Your task to perform on an android device: set the stopwatch Image 0: 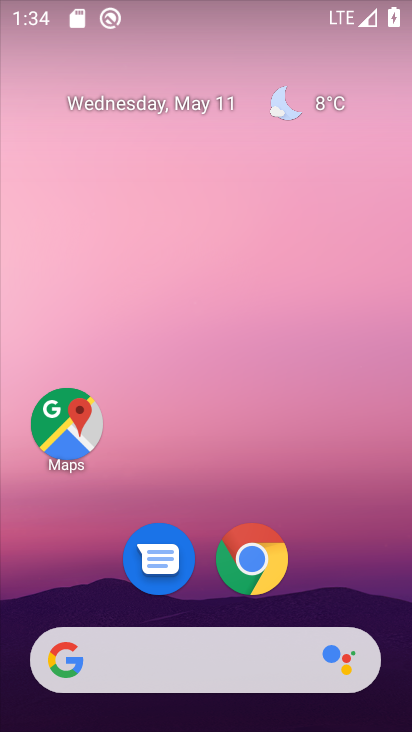
Step 0: drag from (205, 534) to (205, 58)
Your task to perform on an android device: set the stopwatch Image 1: 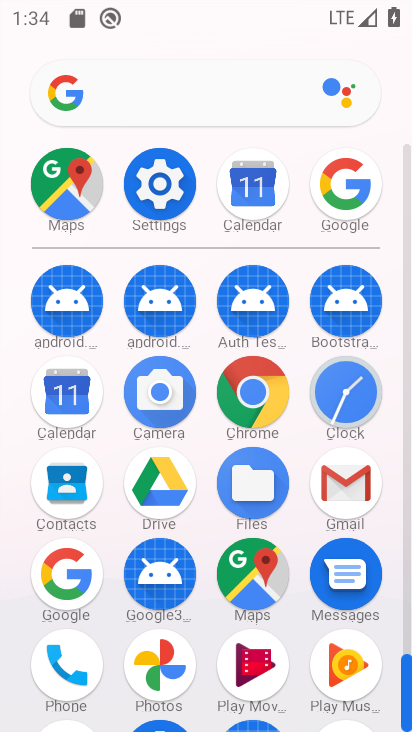
Step 1: click (340, 394)
Your task to perform on an android device: set the stopwatch Image 2: 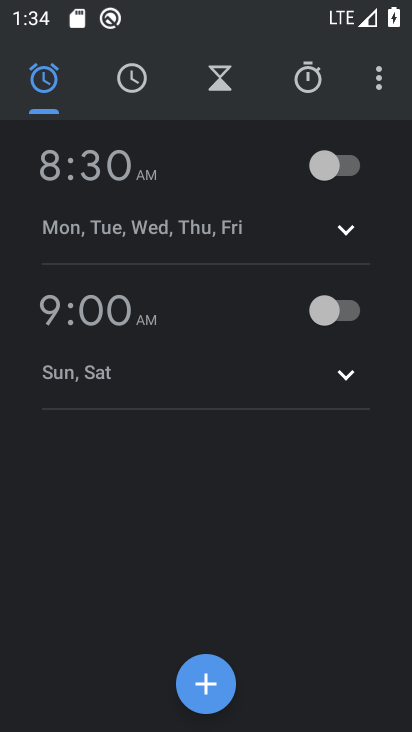
Step 2: click (305, 78)
Your task to perform on an android device: set the stopwatch Image 3: 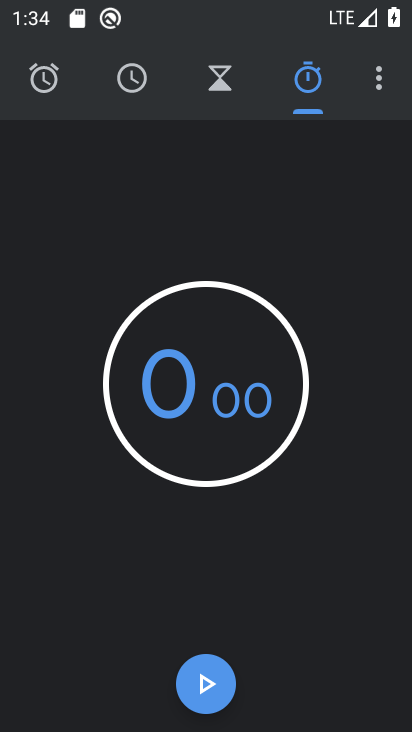
Step 3: type "8790"
Your task to perform on an android device: set the stopwatch Image 4: 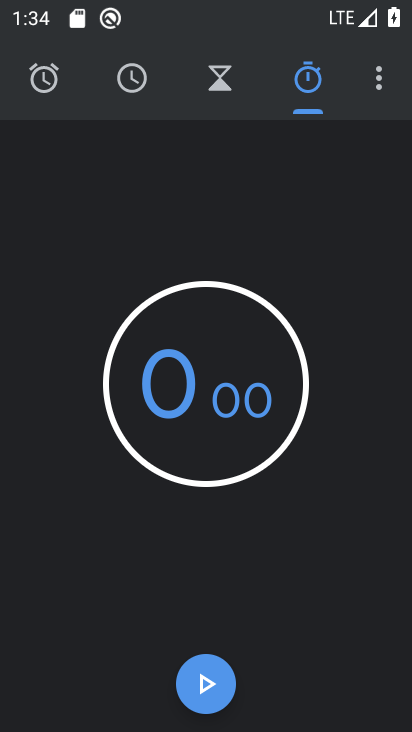
Step 4: click (239, 396)
Your task to perform on an android device: set the stopwatch Image 5: 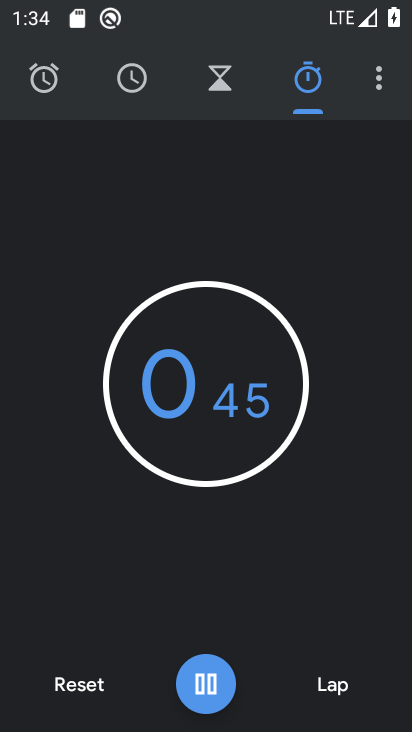
Step 5: type ""
Your task to perform on an android device: set the stopwatch Image 6: 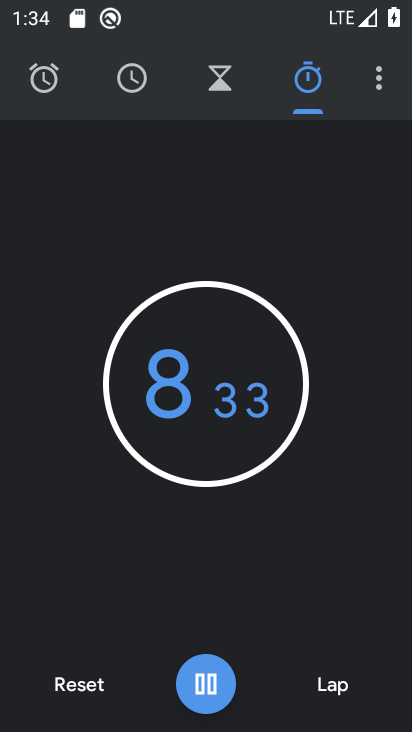
Step 6: task complete